Your task to perform on an android device: move a message to another label in the gmail app Image 0: 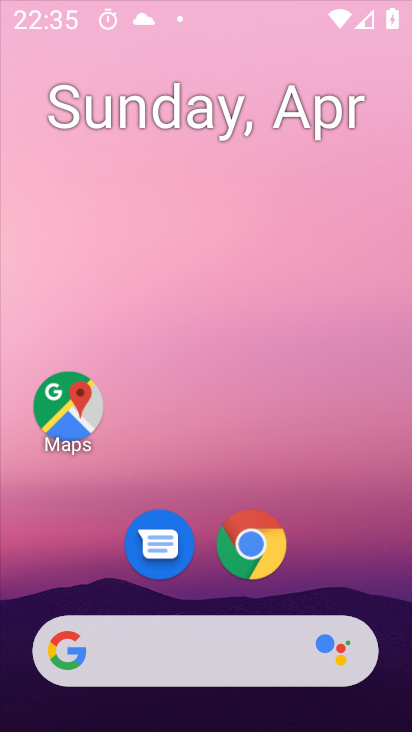
Step 0: click (341, 212)
Your task to perform on an android device: move a message to another label in the gmail app Image 1: 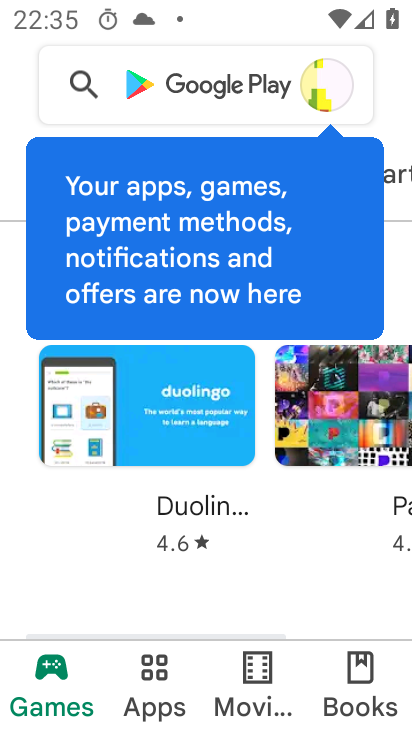
Step 1: press home button
Your task to perform on an android device: move a message to another label in the gmail app Image 2: 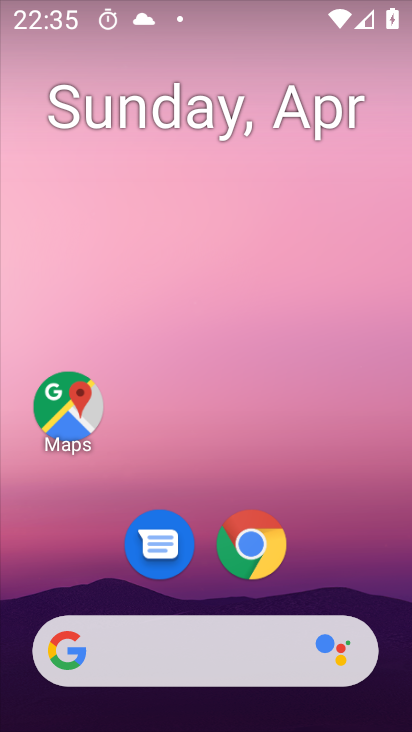
Step 2: drag from (337, 316) to (337, 209)
Your task to perform on an android device: move a message to another label in the gmail app Image 3: 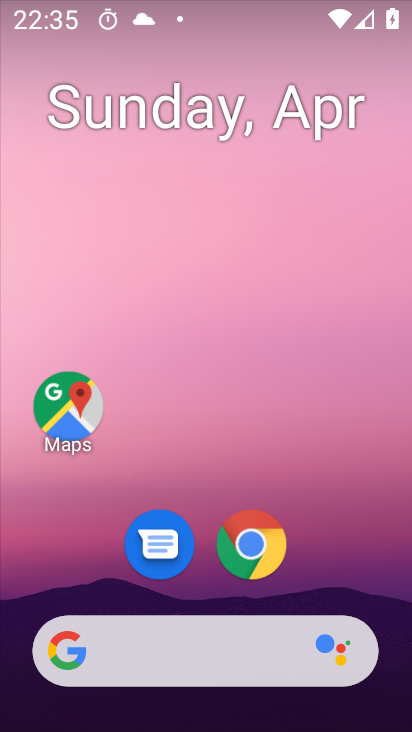
Step 3: drag from (312, 519) to (337, 247)
Your task to perform on an android device: move a message to another label in the gmail app Image 4: 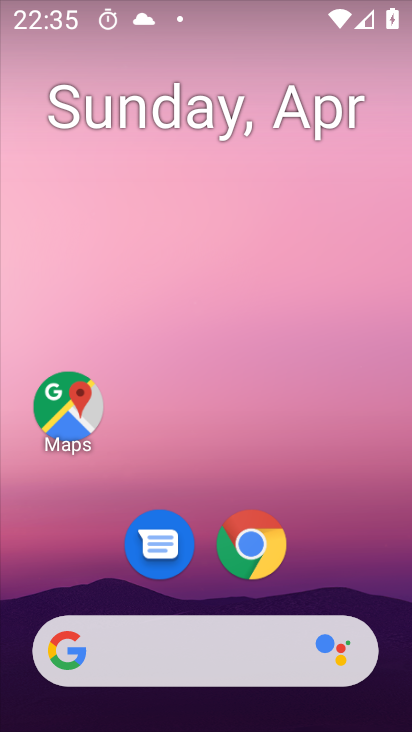
Step 4: drag from (327, 544) to (287, 140)
Your task to perform on an android device: move a message to another label in the gmail app Image 5: 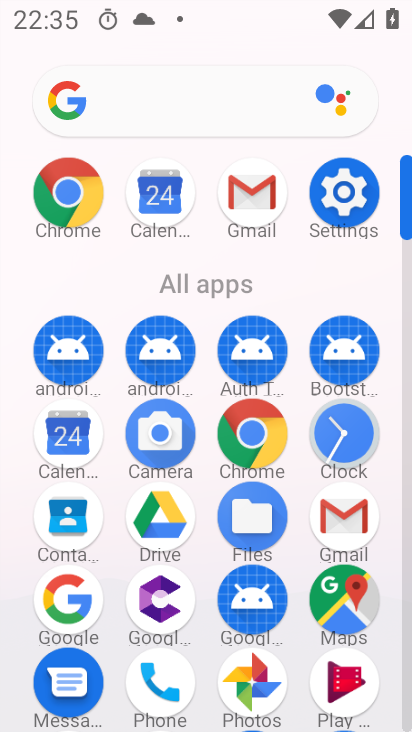
Step 5: click (347, 498)
Your task to perform on an android device: move a message to another label in the gmail app Image 6: 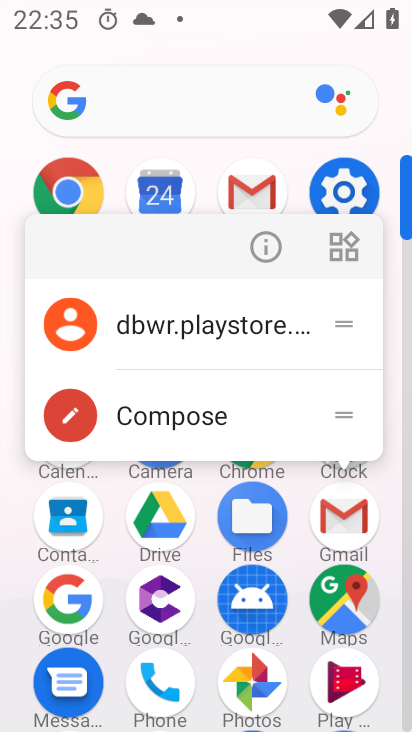
Step 6: click (322, 521)
Your task to perform on an android device: move a message to another label in the gmail app Image 7: 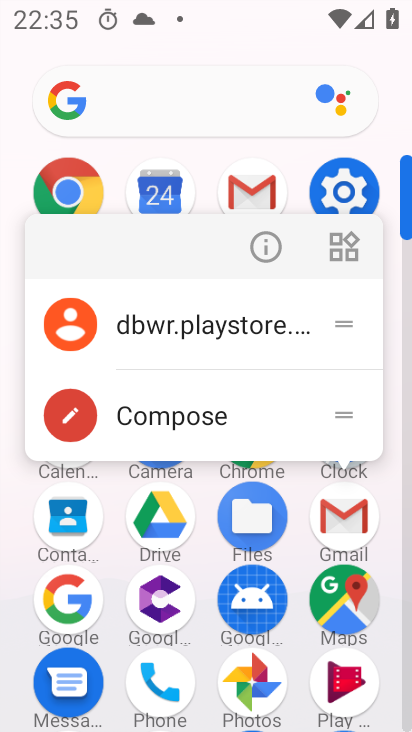
Step 7: click (347, 515)
Your task to perform on an android device: move a message to another label in the gmail app Image 8: 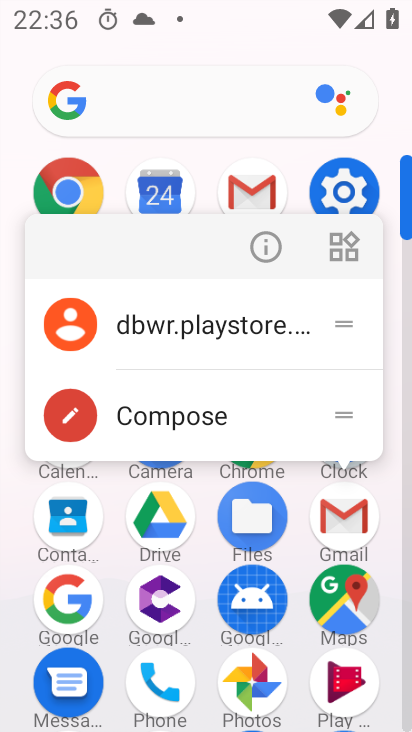
Step 8: click (347, 515)
Your task to perform on an android device: move a message to another label in the gmail app Image 9: 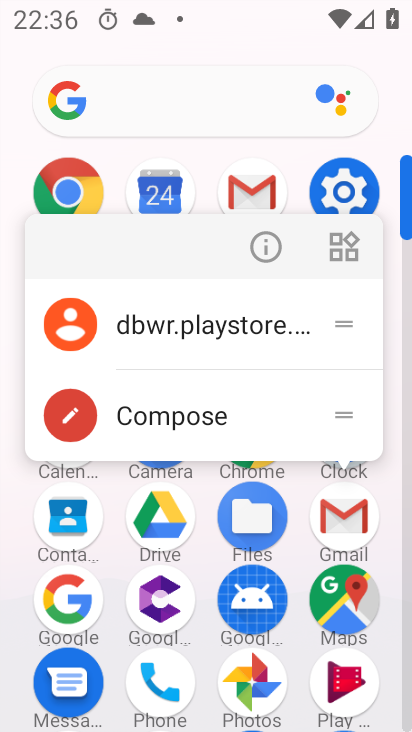
Step 9: click (345, 516)
Your task to perform on an android device: move a message to another label in the gmail app Image 10: 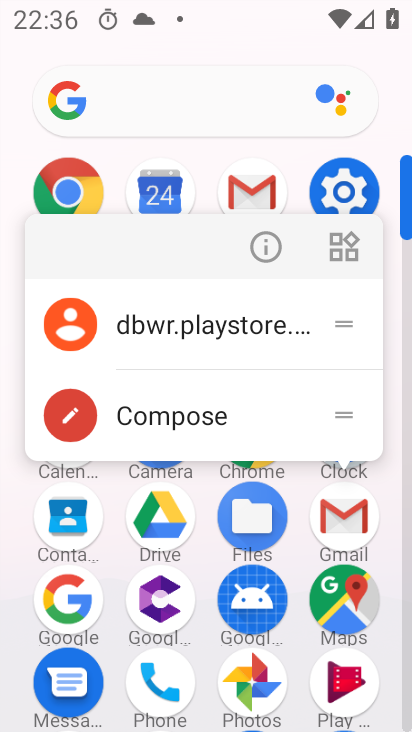
Step 10: click (345, 516)
Your task to perform on an android device: move a message to another label in the gmail app Image 11: 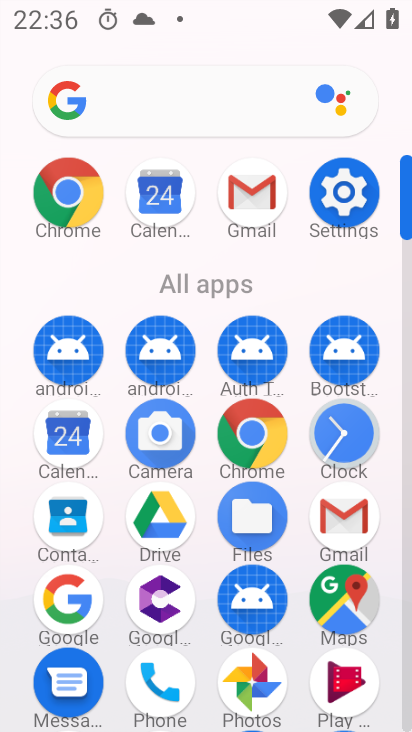
Step 11: click (345, 516)
Your task to perform on an android device: move a message to another label in the gmail app Image 12: 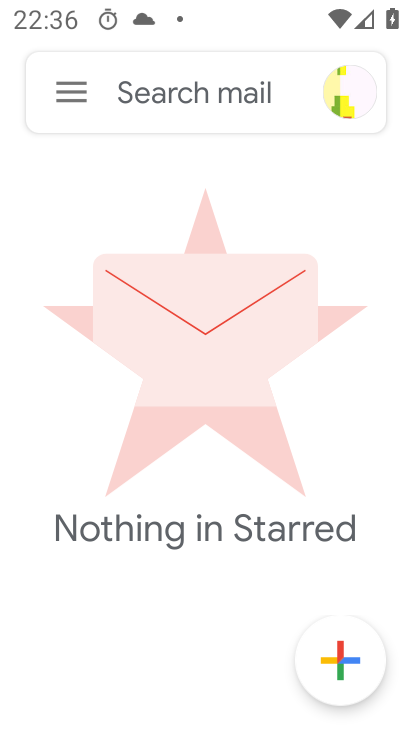
Step 12: click (55, 83)
Your task to perform on an android device: move a message to another label in the gmail app Image 13: 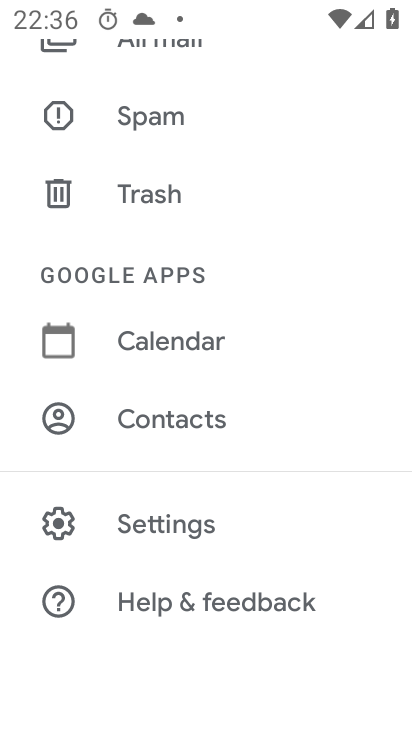
Step 13: drag from (245, 132) to (261, 643)
Your task to perform on an android device: move a message to another label in the gmail app Image 14: 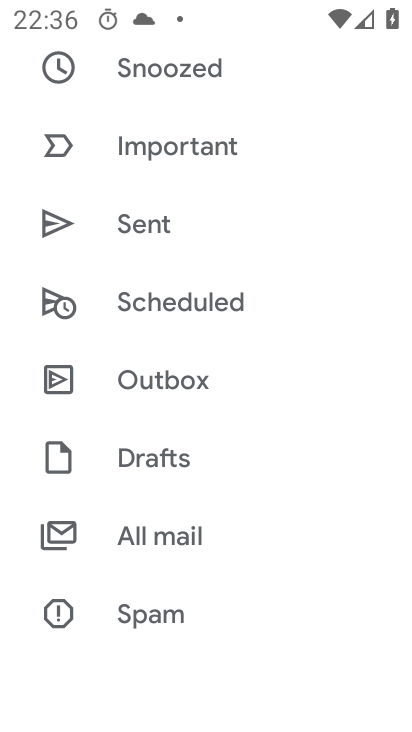
Step 14: click (168, 536)
Your task to perform on an android device: move a message to another label in the gmail app Image 15: 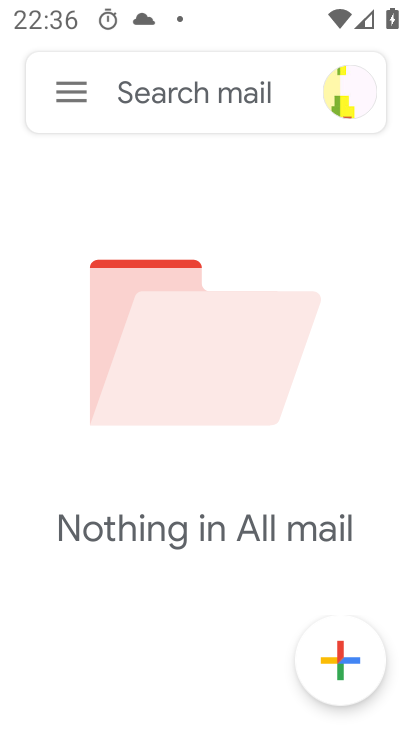
Step 15: task complete